Your task to perform on an android device: Open battery settings Image 0: 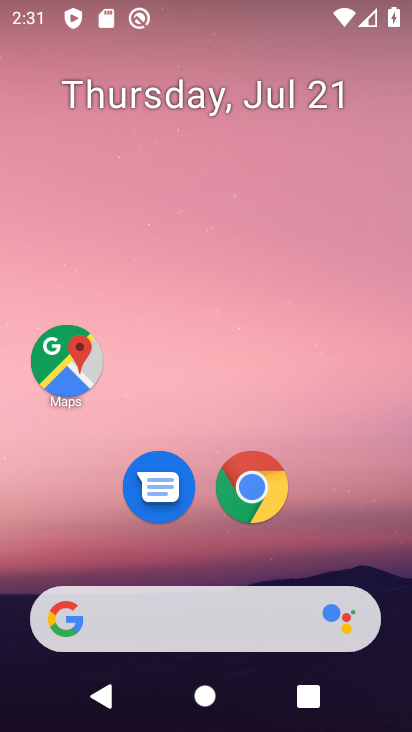
Step 0: drag from (128, 507) to (224, 75)
Your task to perform on an android device: Open battery settings Image 1: 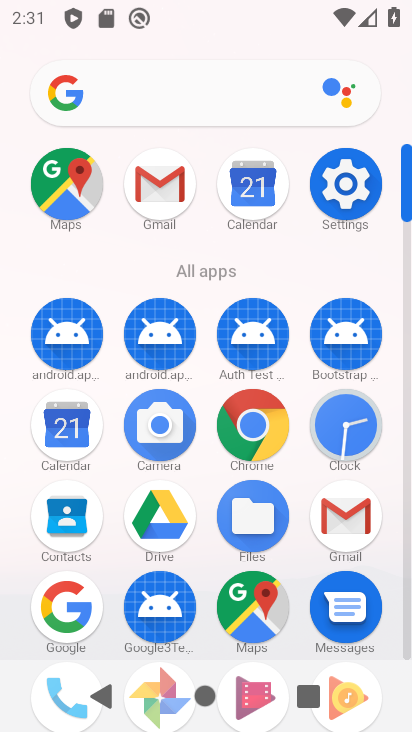
Step 1: click (363, 185)
Your task to perform on an android device: Open battery settings Image 2: 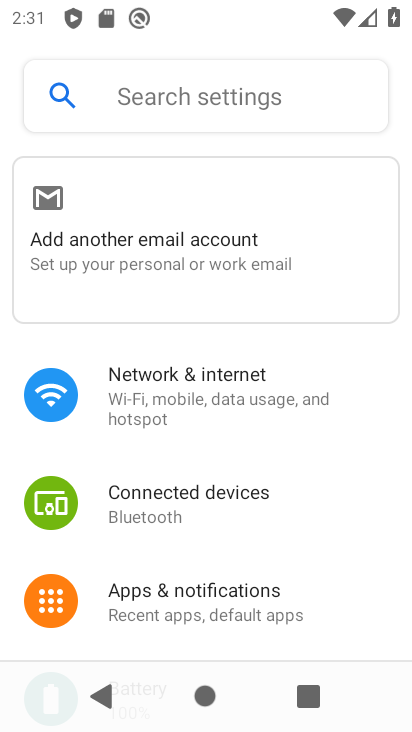
Step 2: drag from (144, 532) to (252, 34)
Your task to perform on an android device: Open battery settings Image 3: 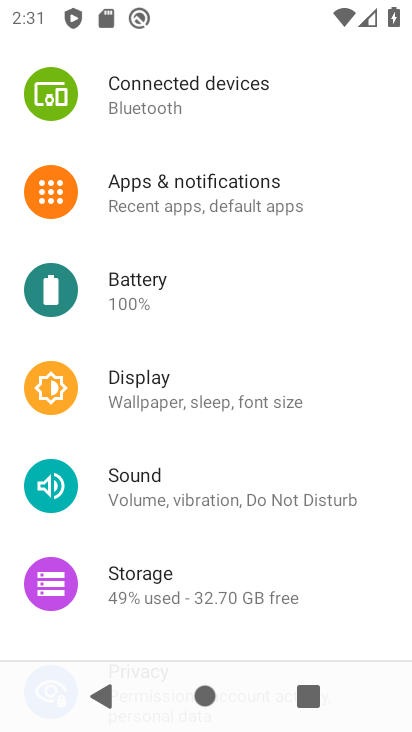
Step 3: click (132, 280)
Your task to perform on an android device: Open battery settings Image 4: 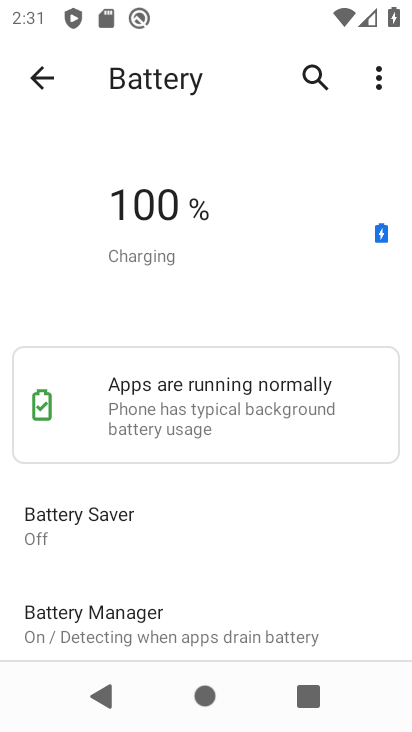
Step 4: task complete